Your task to perform on an android device: check data usage Image 0: 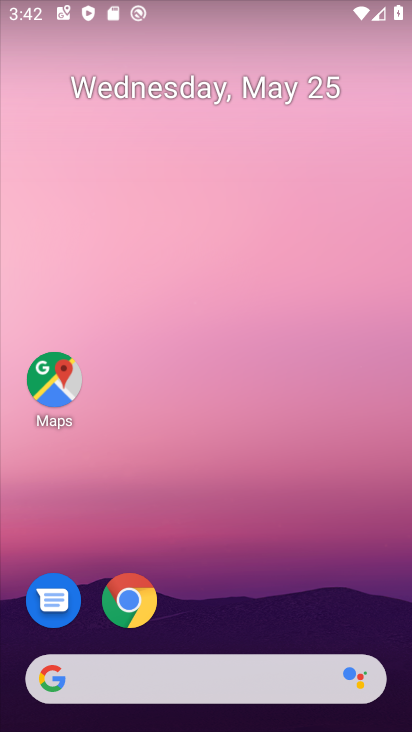
Step 0: drag from (27, 579) to (291, 76)
Your task to perform on an android device: check data usage Image 1: 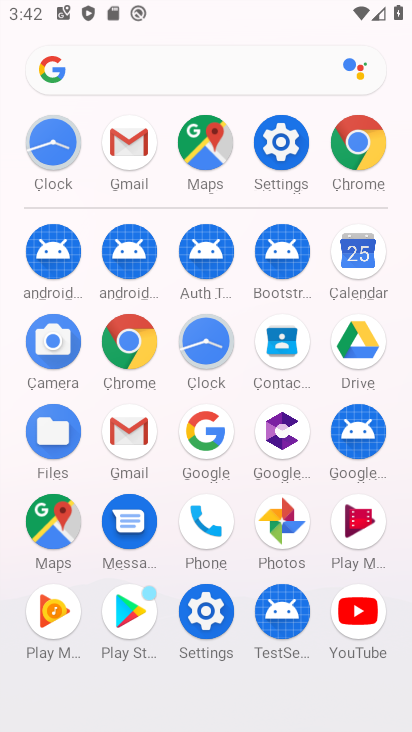
Step 1: click (266, 141)
Your task to perform on an android device: check data usage Image 2: 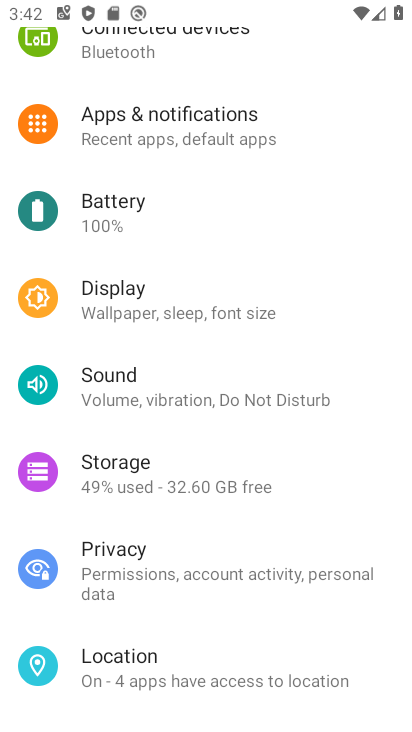
Step 2: drag from (103, 78) to (129, 538)
Your task to perform on an android device: check data usage Image 3: 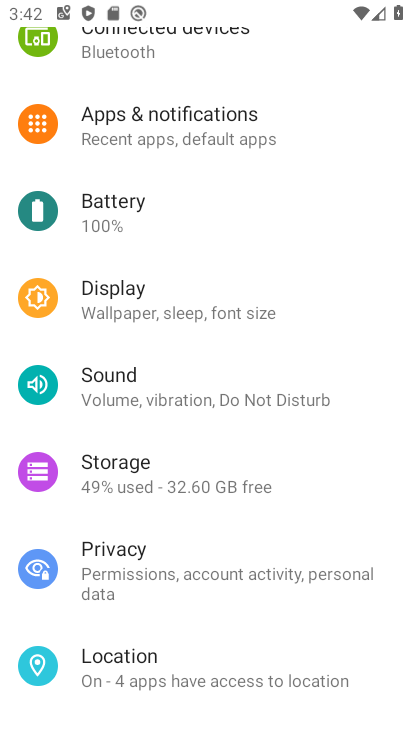
Step 3: drag from (197, 93) to (201, 578)
Your task to perform on an android device: check data usage Image 4: 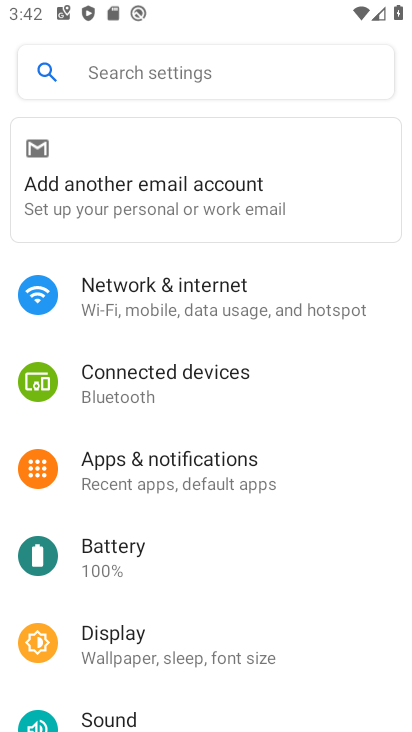
Step 4: click (220, 288)
Your task to perform on an android device: check data usage Image 5: 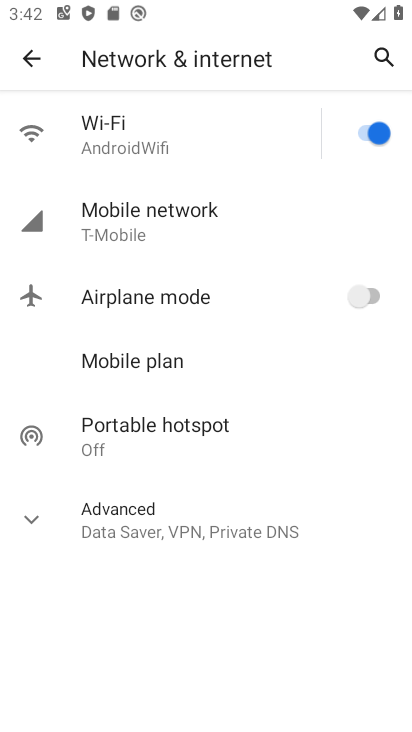
Step 5: click (130, 219)
Your task to perform on an android device: check data usage Image 6: 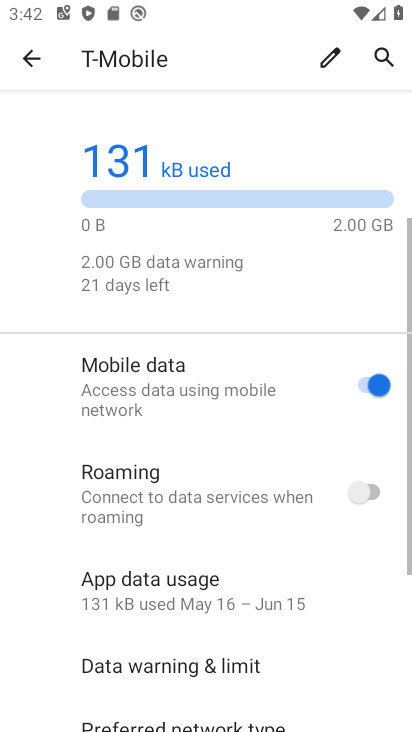
Step 6: task complete